Your task to perform on an android device: check google app version Image 0: 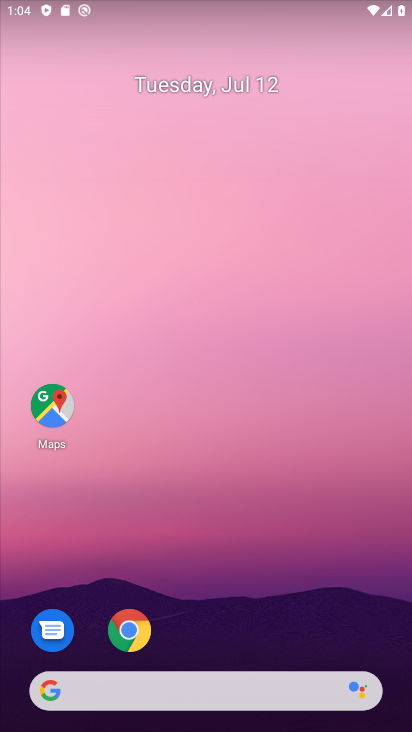
Step 0: drag from (210, 666) to (182, 123)
Your task to perform on an android device: check google app version Image 1: 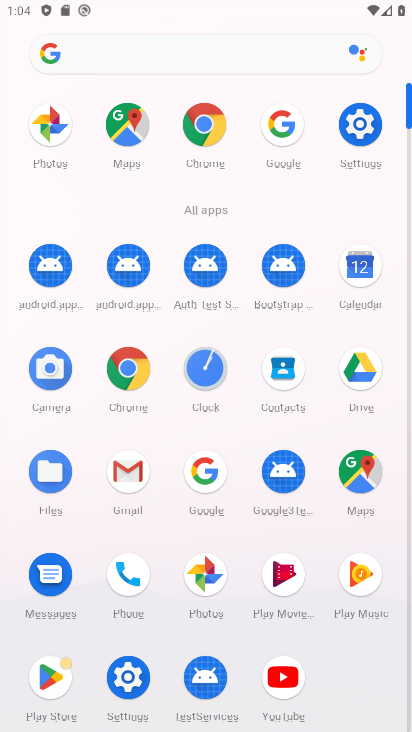
Step 1: click (199, 475)
Your task to perform on an android device: check google app version Image 2: 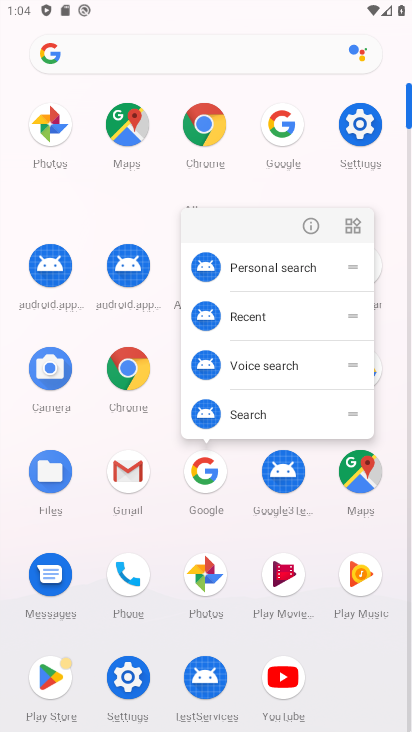
Step 2: click (313, 222)
Your task to perform on an android device: check google app version Image 3: 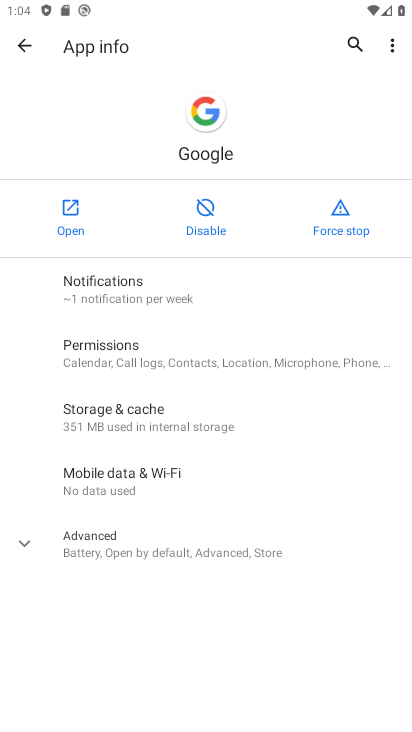
Step 3: click (147, 546)
Your task to perform on an android device: check google app version Image 4: 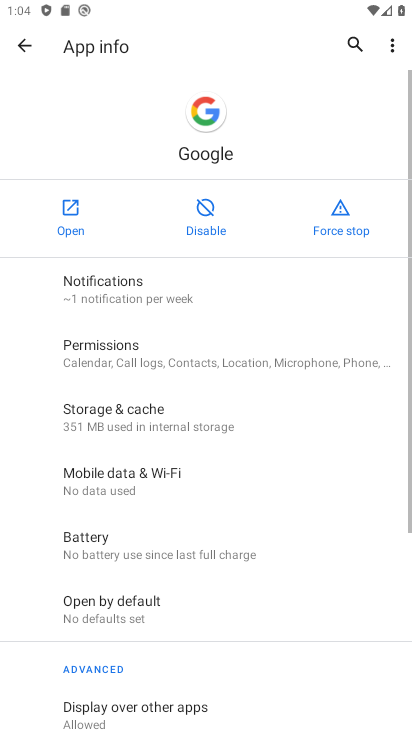
Step 4: drag from (148, 542) to (166, 7)
Your task to perform on an android device: check google app version Image 5: 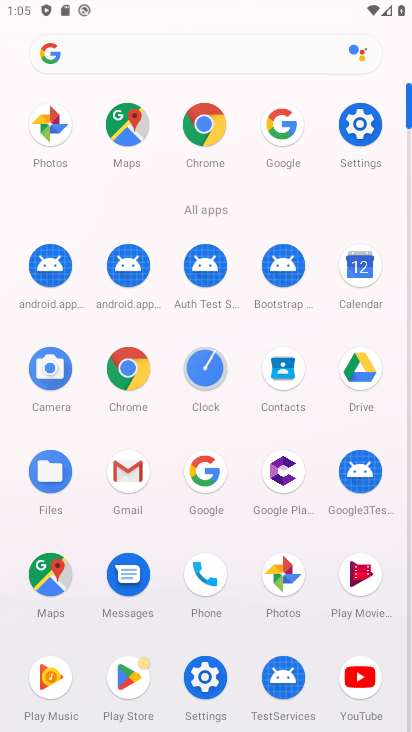
Step 5: click (207, 469)
Your task to perform on an android device: check google app version Image 6: 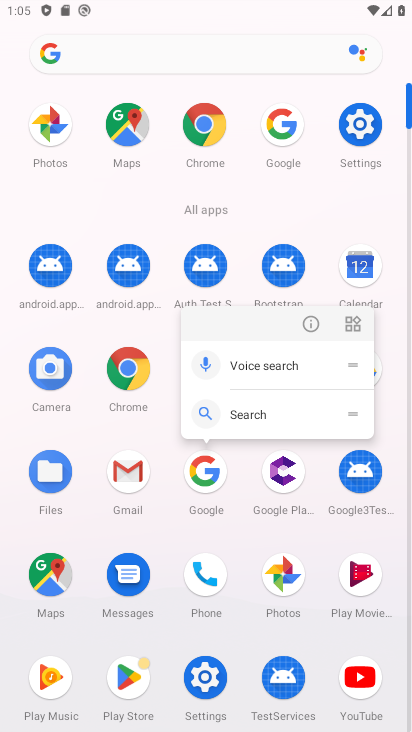
Step 6: click (309, 326)
Your task to perform on an android device: check google app version Image 7: 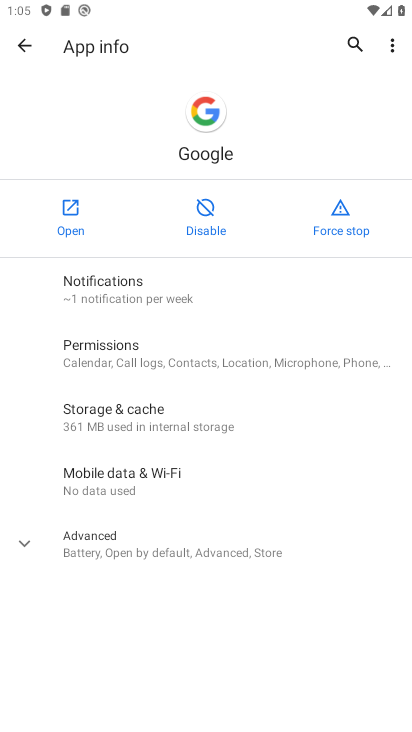
Step 7: click (152, 539)
Your task to perform on an android device: check google app version Image 8: 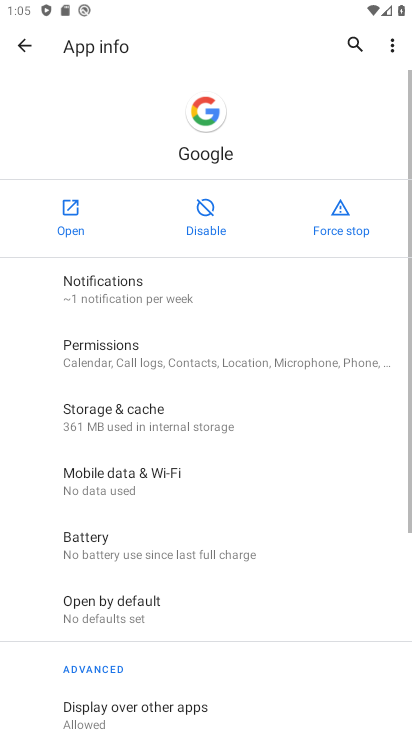
Step 8: task complete